Your task to perform on an android device: turn off notifications settings in the gmail app Image 0: 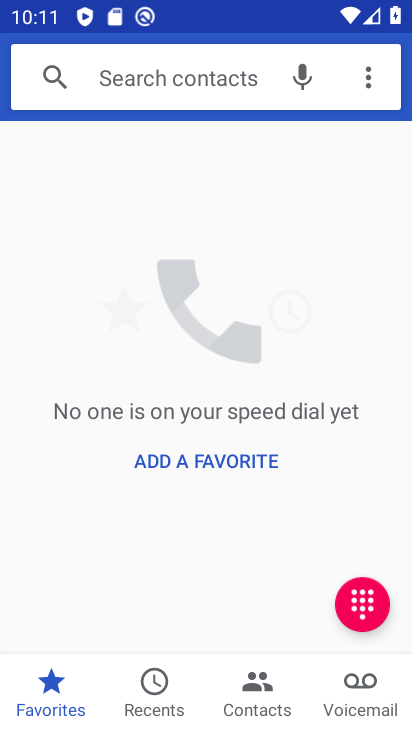
Step 0: press home button
Your task to perform on an android device: turn off notifications settings in the gmail app Image 1: 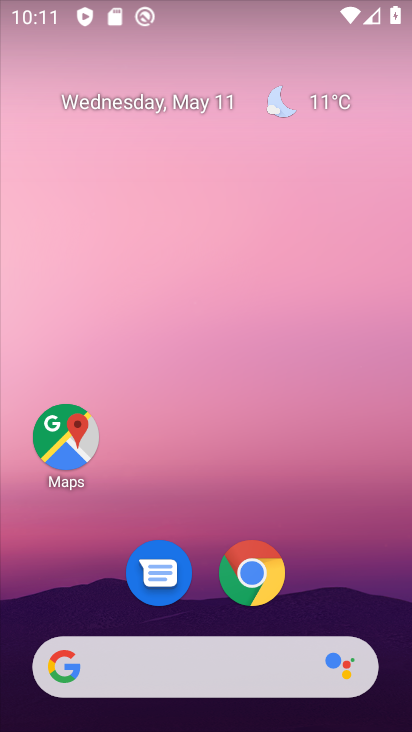
Step 1: drag from (198, 590) to (243, 24)
Your task to perform on an android device: turn off notifications settings in the gmail app Image 2: 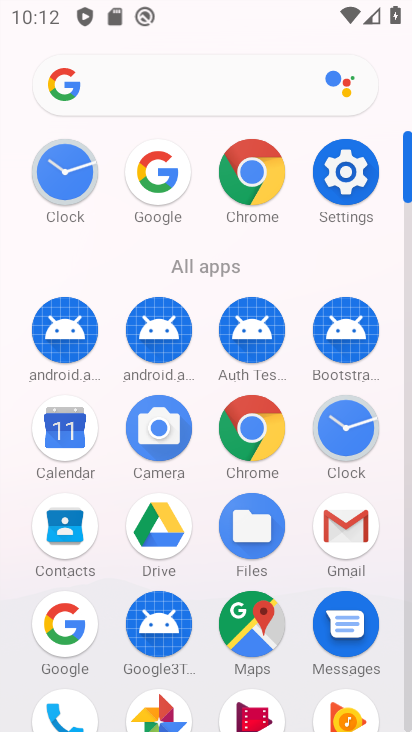
Step 2: click (326, 538)
Your task to perform on an android device: turn off notifications settings in the gmail app Image 3: 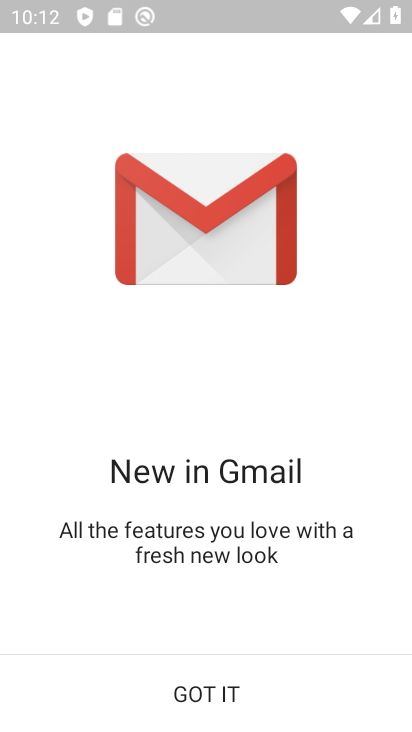
Step 3: click (193, 702)
Your task to perform on an android device: turn off notifications settings in the gmail app Image 4: 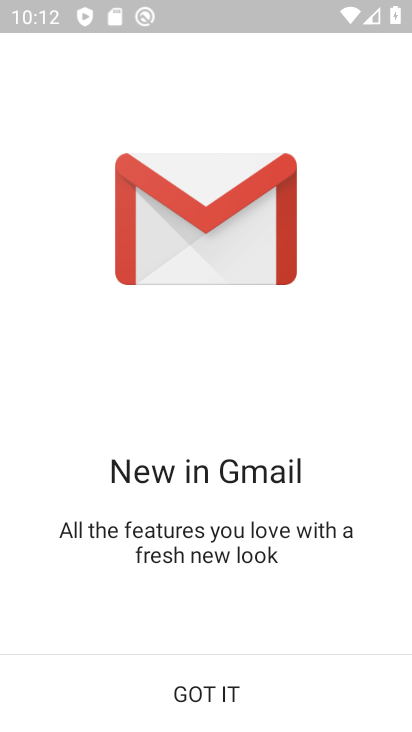
Step 4: click (193, 702)
Your task to perform on an android device: turn off notifications settings in the gmail app Image 5: 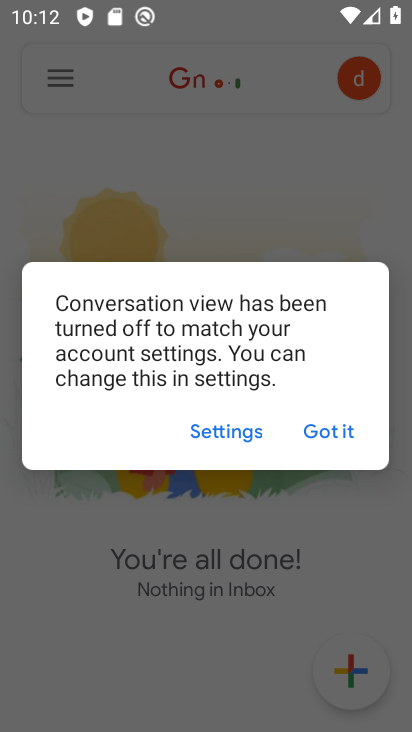
Step 5: click (317, 424)
Your task to perform on an android device: turn off notifications settings in the gmail app Image 6: 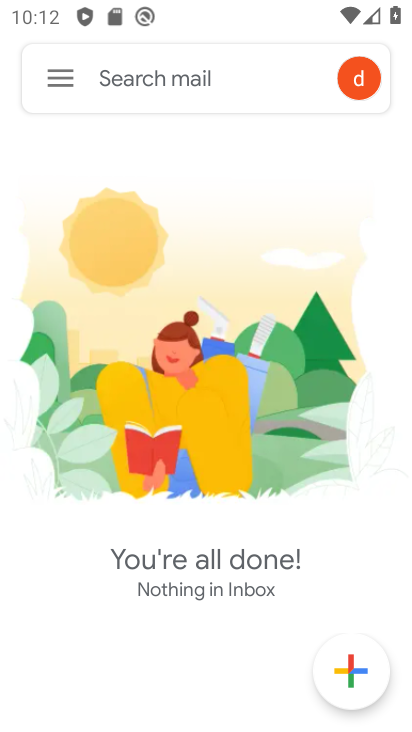
Step 6: click (70, 77)
Your task to perform on an android device: turn off notifications settings in the gmail app Image 7: 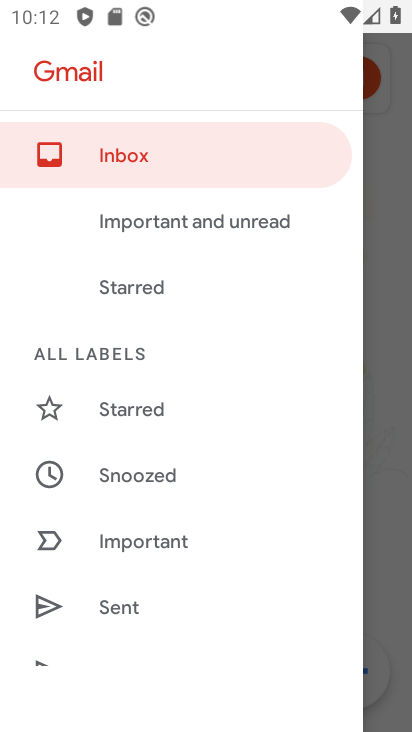
Step 7: drag from (130, 555) to (187, 123)
Your task to perform on an android device: turn off notifications settings in the gmail app Image 8: 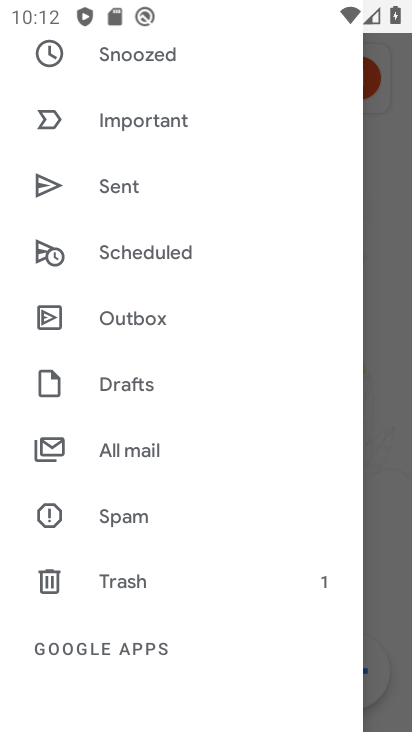
Step 8: drag from (190, 593) to (249, 157)
Your task to perform on an android device: turn off notifications settings in the gmail app Image 9: 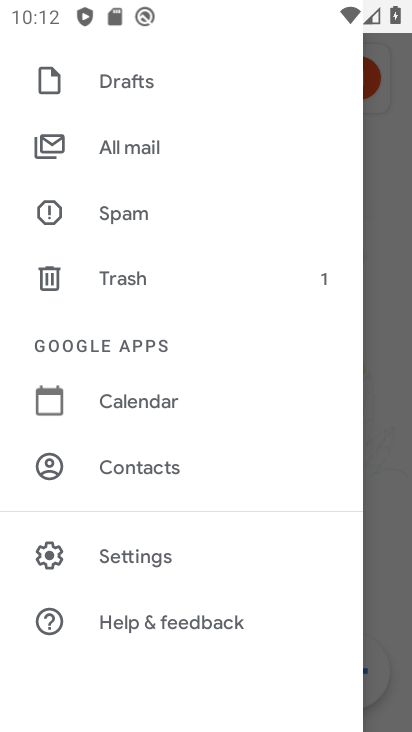
Step 9: click (142, 557)
Your task to perform on an android device: turn off notifications settings in the gmail app Image 10: 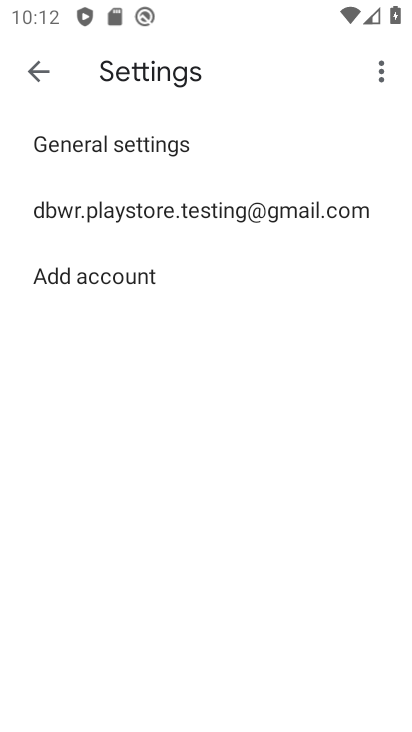
Step 10: click (162, 151)
Your task to perform on an android device: turn off notifications settings in the gmail app Image 11: 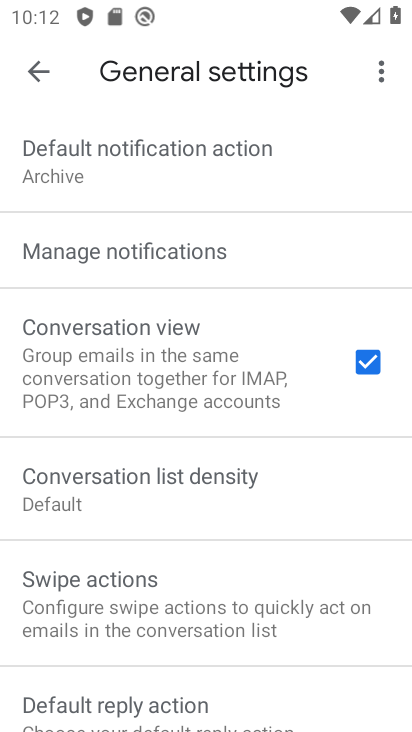
Step 11: click (175, 252)
Your task to perform on an android device: turn off notifications settings in the gmail app Image 12: 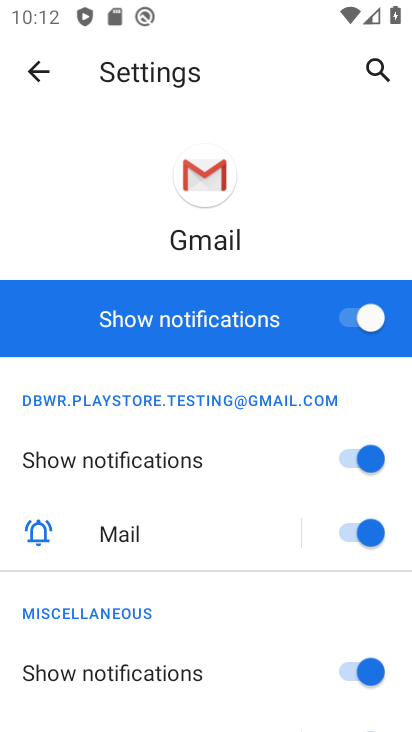
Step 12: click (356, 318)
Your task to perform on an android device: turn off notifications settings in the gmail app Image 13: 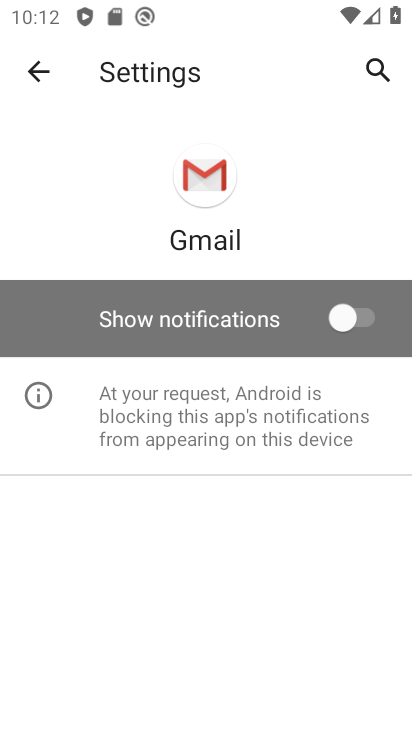
Step 13: task complete